Your task to perform on an android device: move a message to another label in the gmail app Image 0: 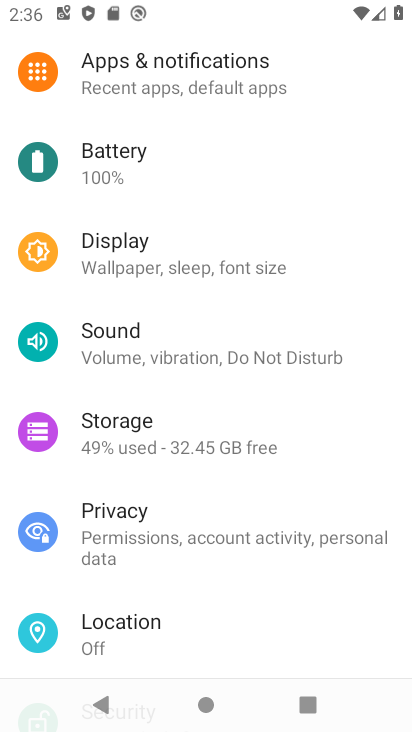
Step 0: press home button
Your task to perform on an android device: move a message to another label in the gmail app Image 1: 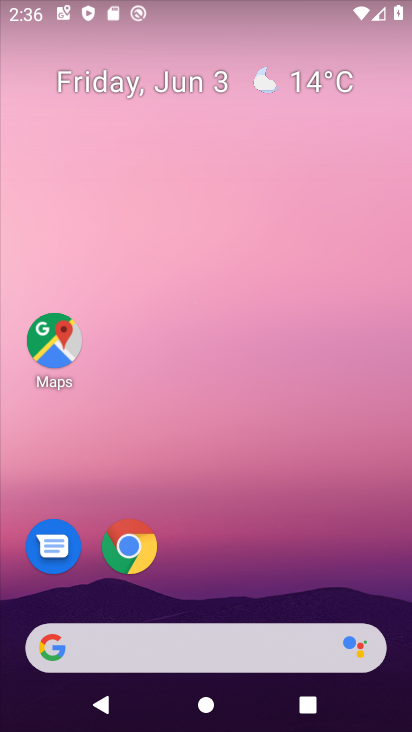
Step 1: drag from (331, 497) to (359, 72)
Your task to perform on an android device: move a message to another label in the gmail app Image 2: 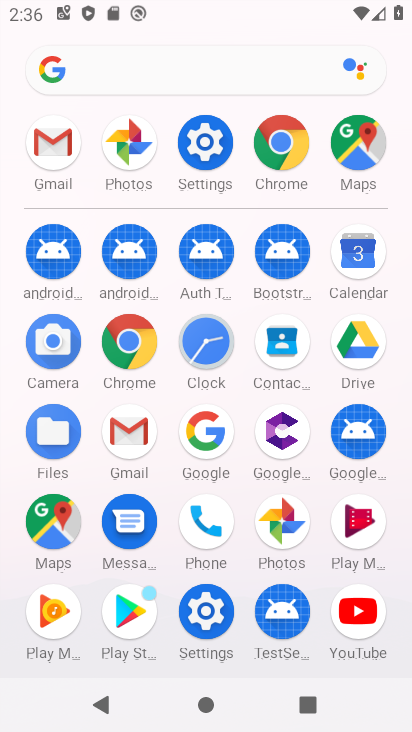
Step 2: click (49, 154)
Your task to perform on an android device: move a message to another label in the gmail app Image 3: 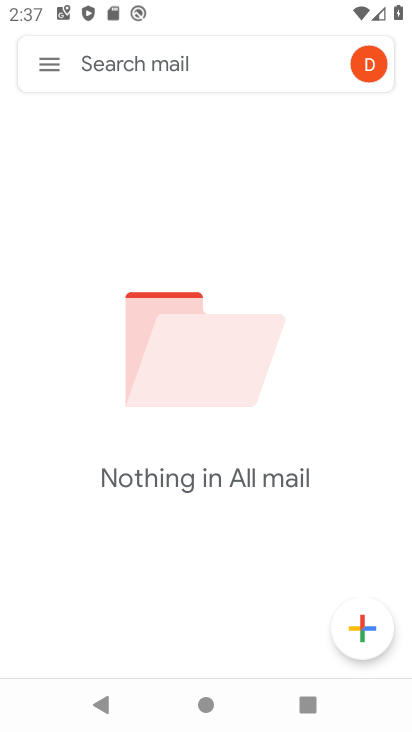
Step 3: task complete